Your task to perform on an android device: Search for "razer thresher" on costco, select the first entry, and add it to the cart. Image 0: 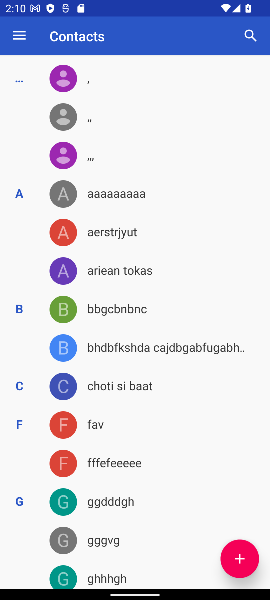
Step 0: press home button
Your task to perform on an android device: Search for "razer thresher" on costco, select the first entry, and add it to the cart. Image 1: 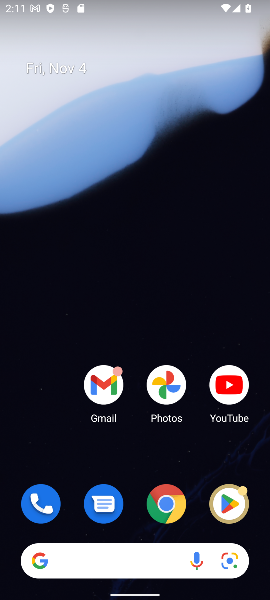
Step 1: click (169, 501)
Your task to perform on an android device: Search for "razer thresher" on costco, select the first entry, and add it to the cart. Image 2: 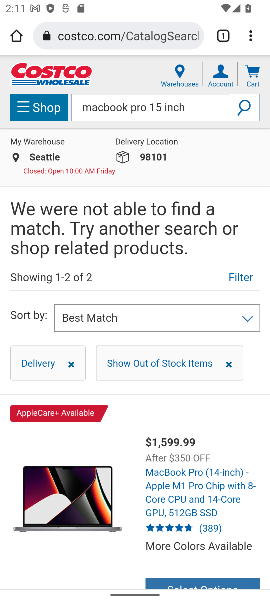
Step 2: click (165, 109)
Your task to perform on an android device: Search for "razer thresher" on costco, select the first entry, and add it to the cart. Image 3: 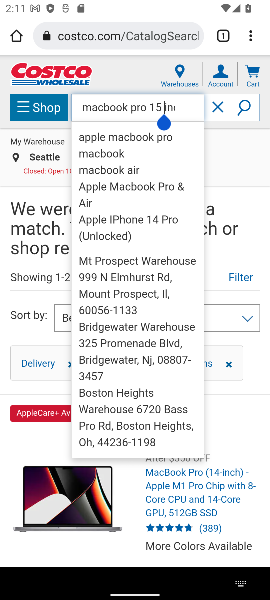
Step 3: click (218, 112)
Your task to perform on an android device: Search for "razer thresher" on costco, select the first entry, and add it to the cart. Image 4: 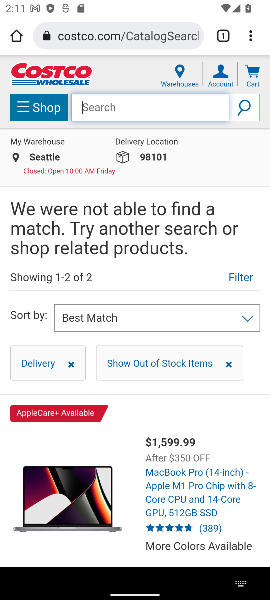
Step 4: type "razer thresher"
Your task to perform on an android device: Search for "razer thresher" on costco, select the first entry, and add it to the cart. Image 5: 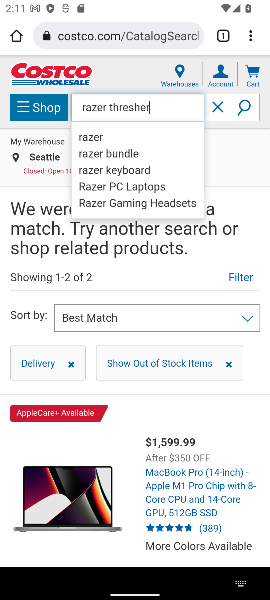
Step 5: click (243, 105)
Your task to perform on an android device: Search for "razer thresher" on costco, select the first entry, and add it to the cart. Image 6: 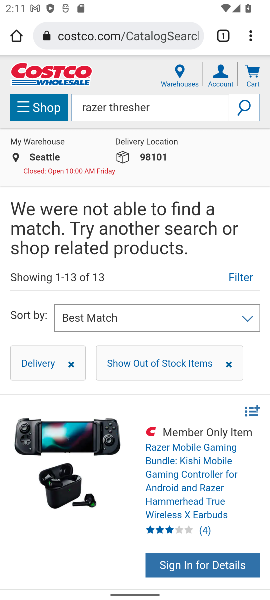
Step 6: task complete